Your task to perform on an android device: Go to accessibility settings Image 0: 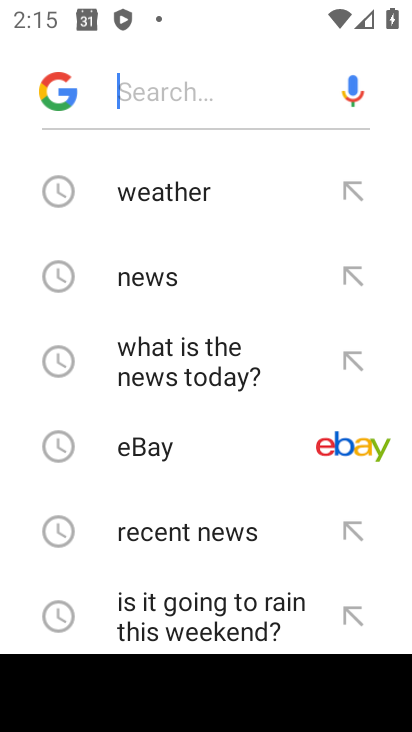
Step 0: press home button
Your task to perform on an android device: Go to accessibility settings Image 1: 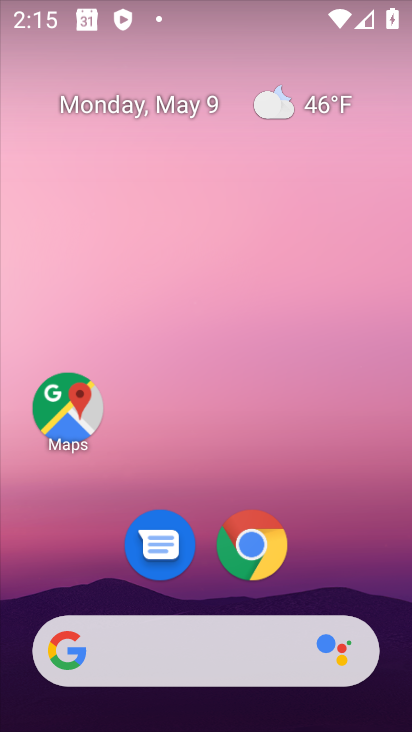
Step 1: drag from (203, 585) to (233, 270)
Your task to perform on an android device: Go to accessibility settings Image 2: 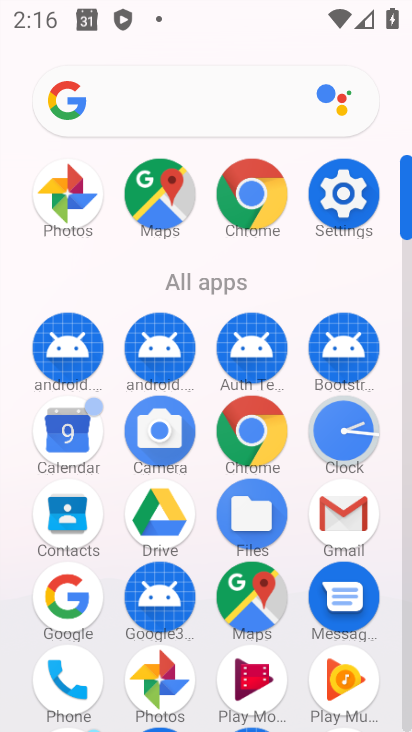
Step 2: click (344, 195)
Your task to perform on an android device: Go to accessibility settings Image 3: 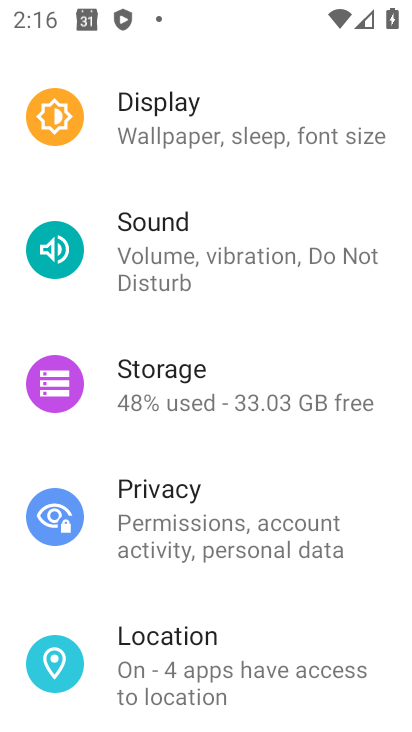
Step 3: drag from (232, 636) to (278, 241)
Your task to perform on an android device: Go to accessibility settings Image 4: 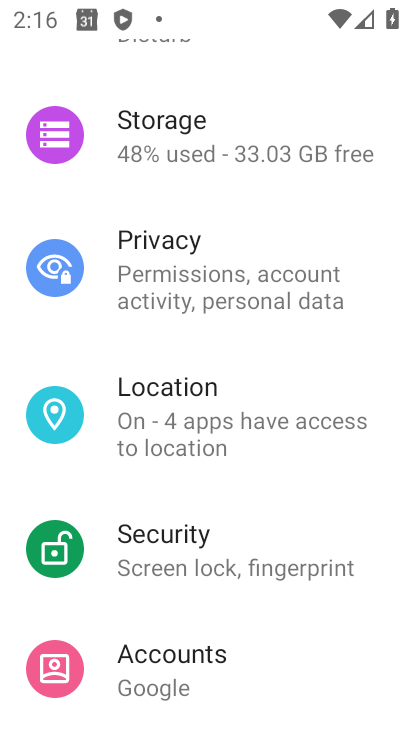
Step 4: drag from (242, 653) to (285, 317)
Your task to perform on an android device: Go to accessibility settings Image 5: 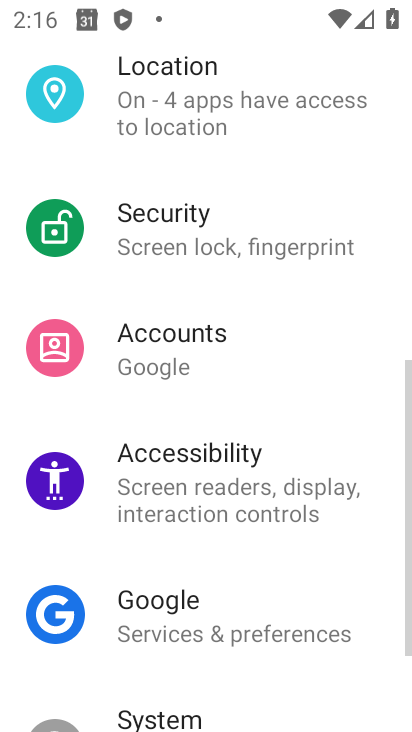
Step 5: click (238, 456)
Your task to perform on an android device: Go to accessibility settings Image 6: 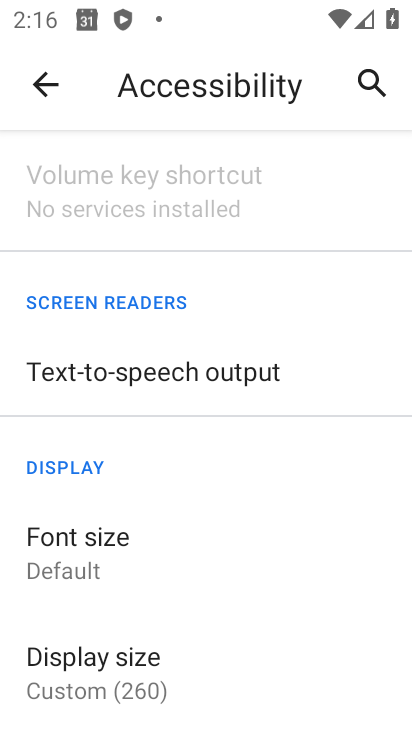
Step 6: task complete